Your task to perform on an android device: turn off smart reply in the gmail app Image 0: 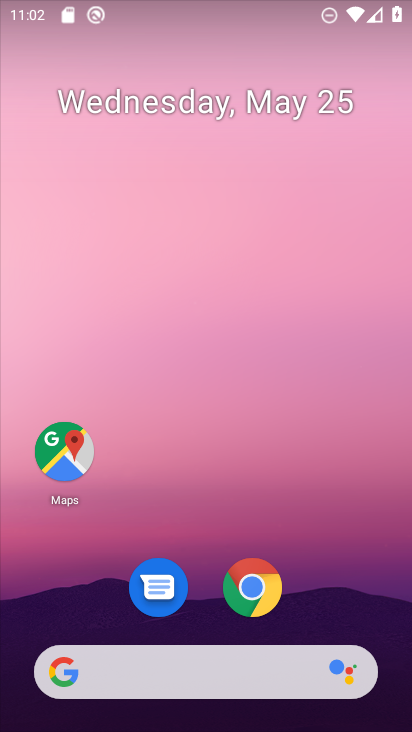
Step 0: drag from (291, 514) to (209, 19)
Your task to perform on an android device: turn off smart reply in the gmail app Image 1: 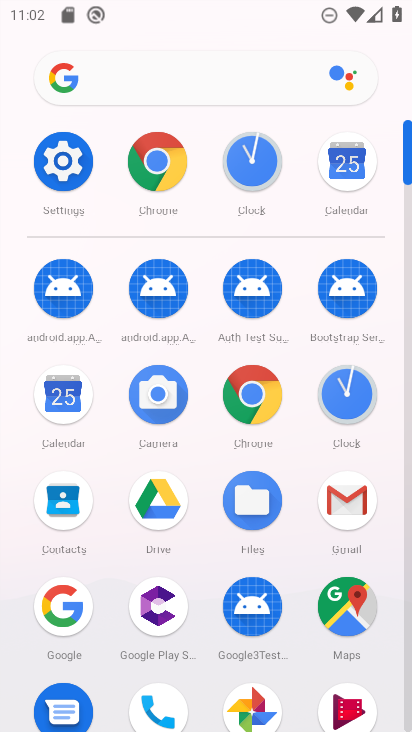
Step 1: drag from (8, 642) to (13, 267)
Your task to perform on an android device: turn off smart reply in the gmail app Image 2: 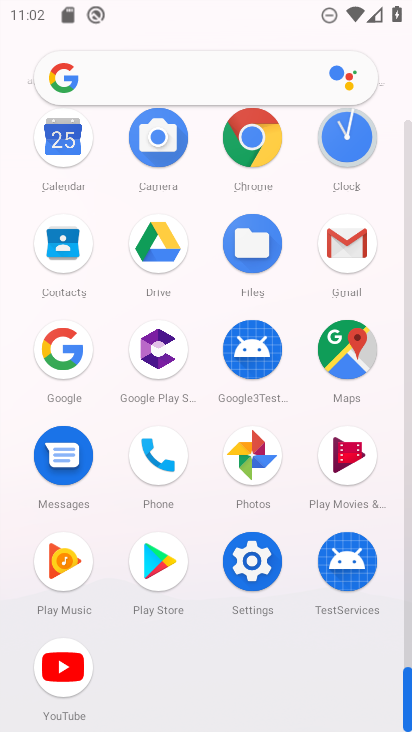
Step 2: click (347, 238)
Your task to perform on an android device: turn off smart reply in the gmail app Image 3: 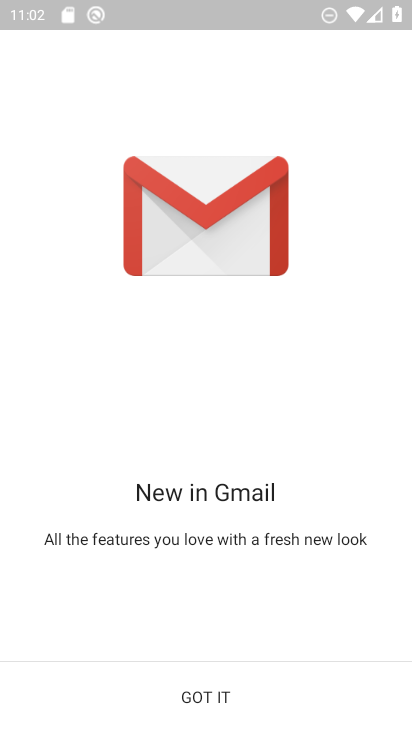
Step 3: click (252, 693)
Your task to perform on an android device: turn off smart reply in the gmail app Image 4: 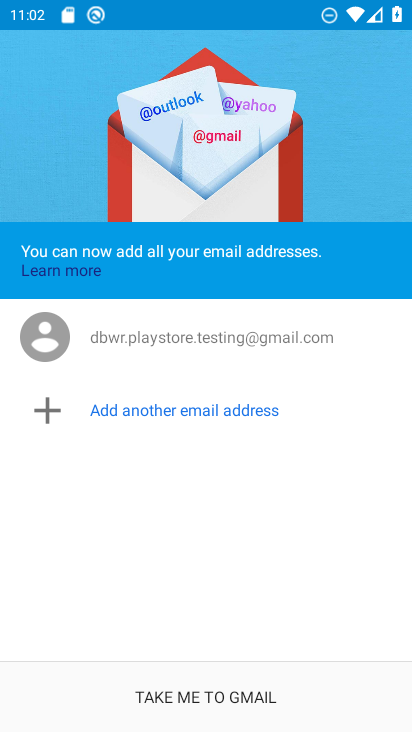
Step 4: click (220, 691)
Your task to perform on an android device: turn off smart reply in the gmail app Image 5: 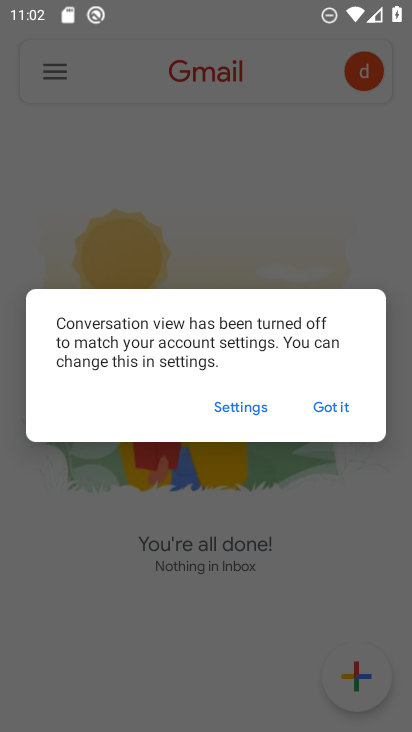
Step 5: click (317, 404)
Your task to perform on an android device: turn off smart reply in the gmail app Image 6: 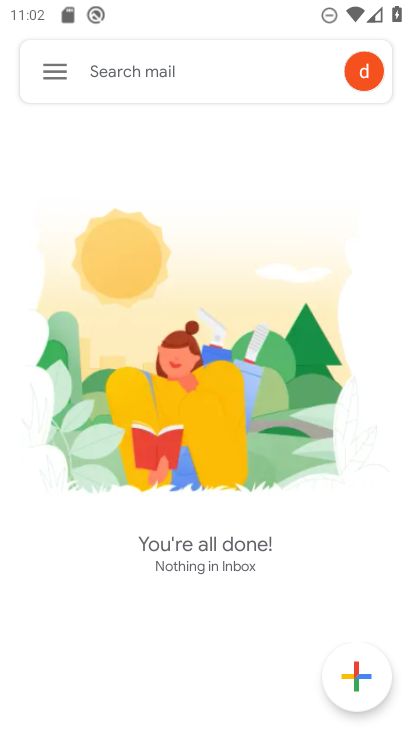
Step 6: click (53, 58)
Your task to perform on an android device: turn off smart reply in the gmail app Image 7: 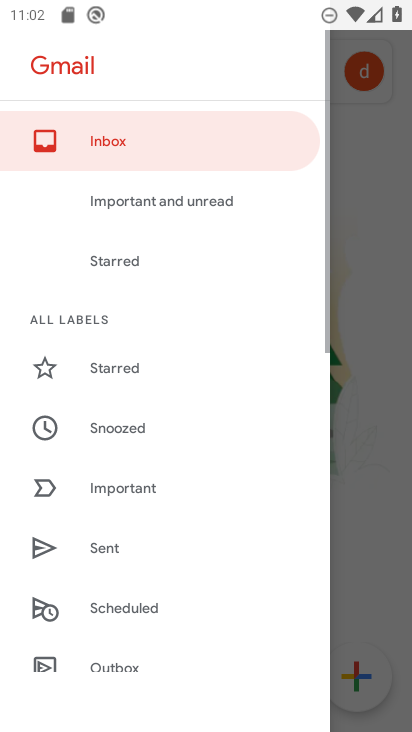
Step 7: drag from (191, 594) to (195, 199)
Your task to perform on an android device: turn off smart reply in the gmail app Image 8: 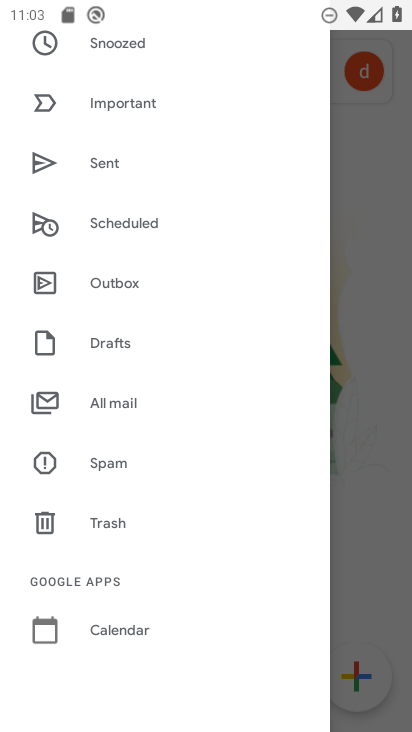
Step 8: drag from (152, 541) to (162, 104)
Your task to perform on an android device: turn off smart reply in the gmail app Image 9: 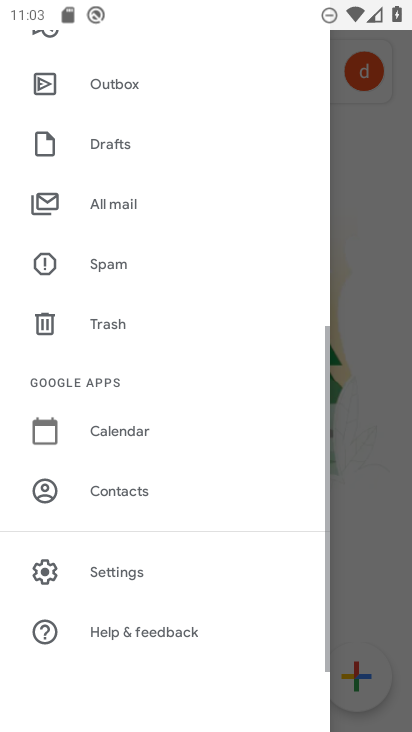
Step 9: click (116, 575)
Your task to perform on an android device: turn off smart reply in the gmail app Image 10: 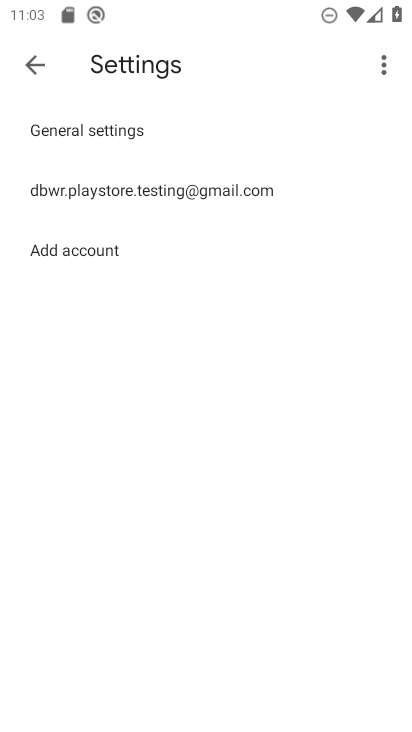
Step 10: click (154, 193)
Your task to perform on an android device: turn off smart reply in the gmail app Image 11: 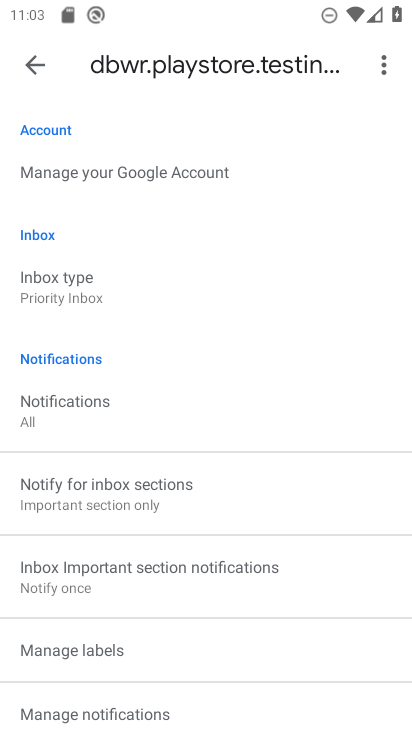
Step 11: drag from (232, 613) to (275, 125)
Your task to perform on an android device: turn off smart reply in the gmail app Image 12: 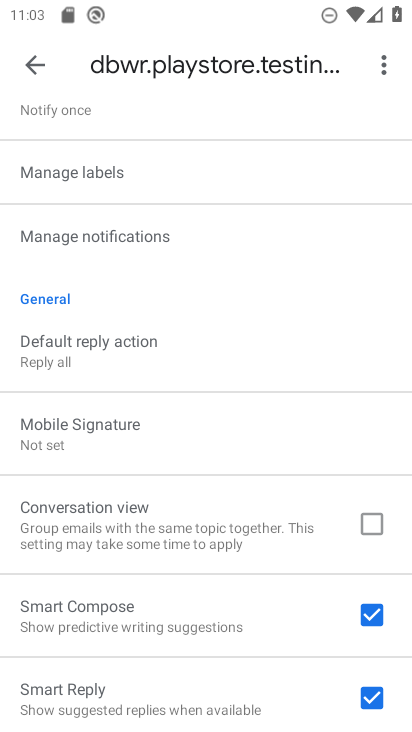
Step 12: drag from (198, 584) to (193, 239)
Your task to perform on an android device: turn off smart reply in the gmail app Image 13: 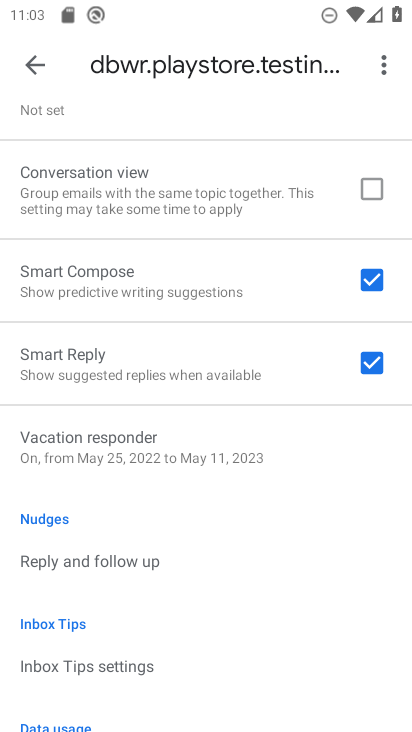
Step 13: click (363, 351)
Your task to perform on an android device: turn off smart reply in the gmail app Image 14: 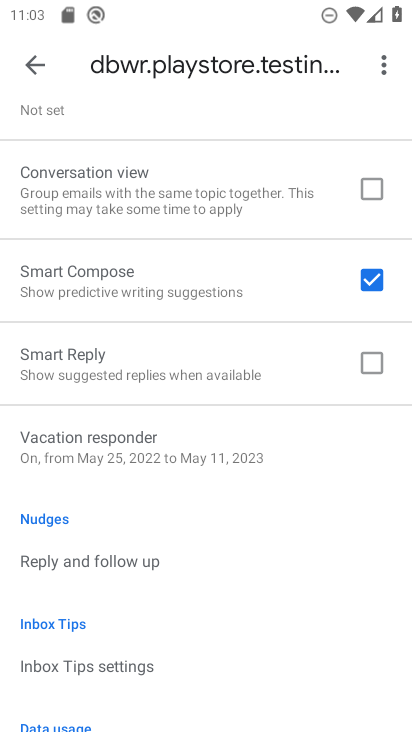
Step 14: task complete